Your task to perform on an android device: change notifications settings Image 0: 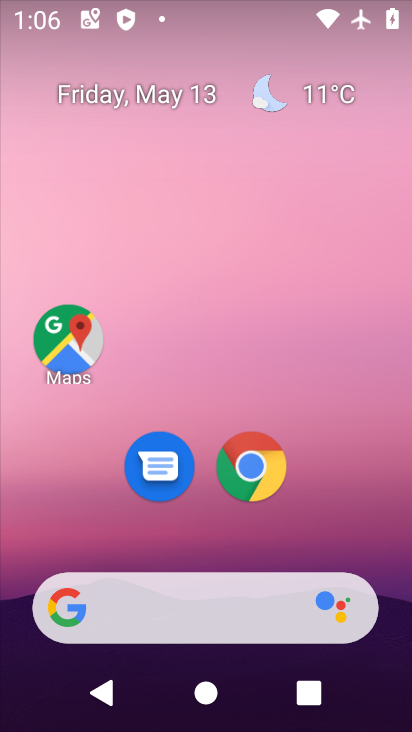
Step 0: drag from (295, 529) to (328, 22)
Your task to perform on an android device: change notifications settings Image 1: 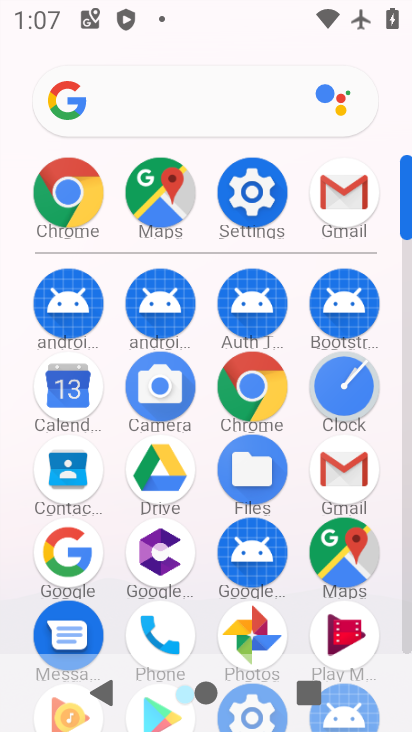
Step 1: click (269, 193)
Your task to perform on an android device: change notifications settings Image 2: 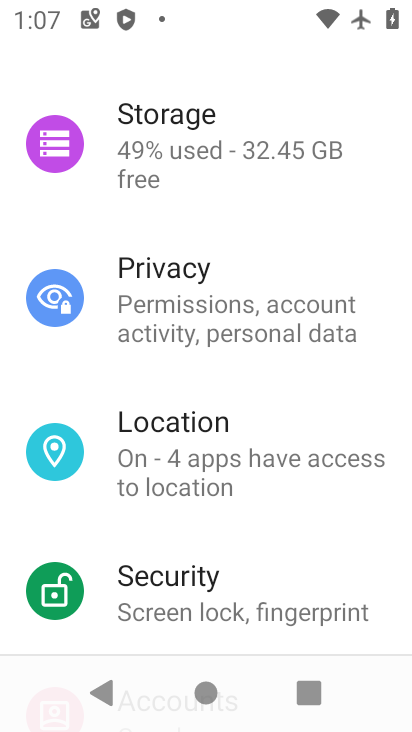
Step 2: drag from (249, 559) to (286, 189)
Your task to perform on an android device: change notifications settings Image 3: 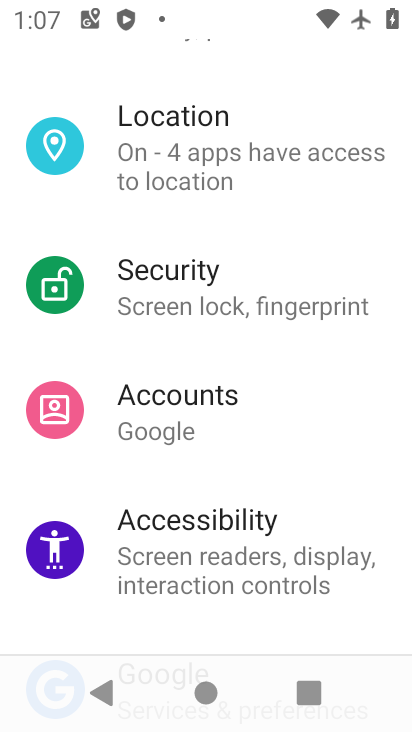
Step 3: drag from (242, 200) to (308, 500)
Your task to perform on an android device: change notifications settings Image 4: 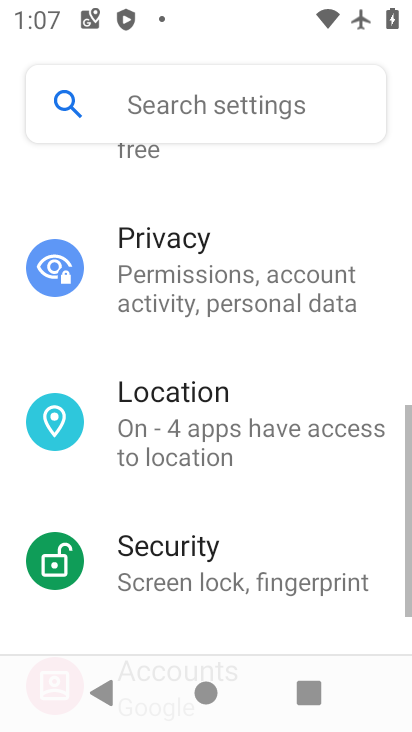
Step 4: drag from (273, 178) to (334, 544)
Your task to perform on an android device: change notifications settings Image 5: 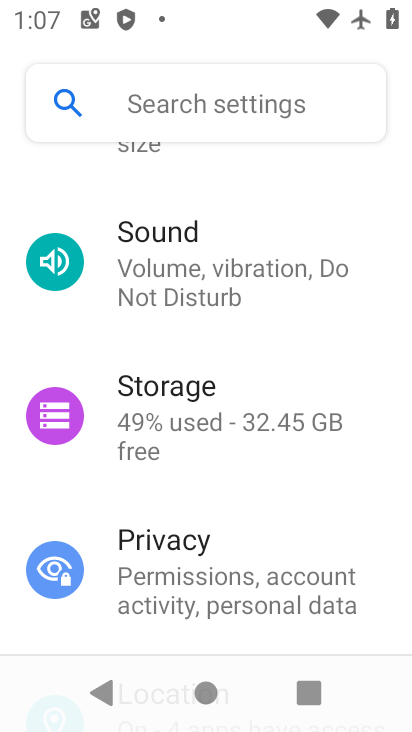
Step 5: drag from (269, 286) to (299, 562)
Your task to perform on an android device: change notifications settings Image 6: 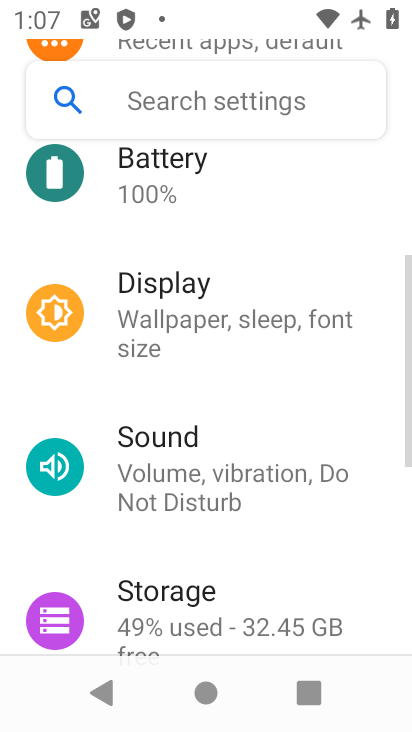
Step 6: drag from (203, 256) to (287, 573)
Your task to perform on an android device: change notifications settings Image 7: 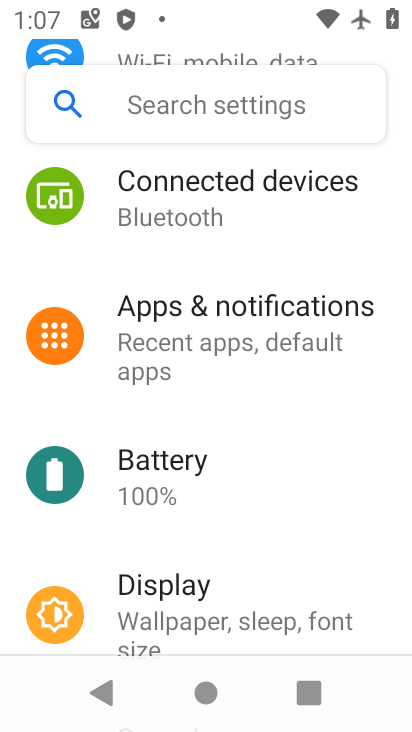
Step 7: click (233, 347)
Your task to perform on an android device: change notifications settings Image 8: 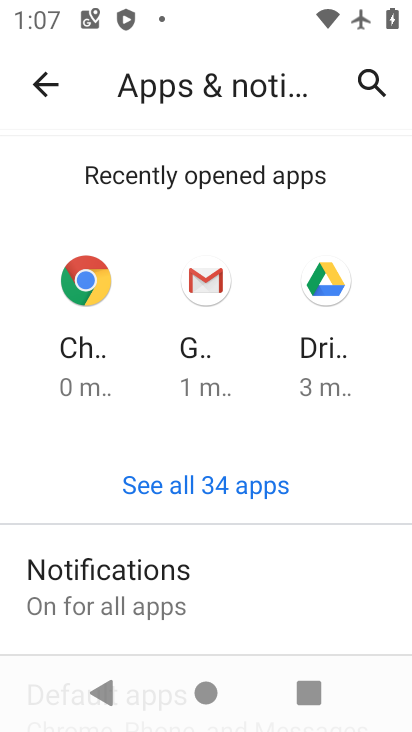
Step 8: drag from (272, 590) to (322, 215)
Your task to perform on an android device: change notifications settings Image 9: 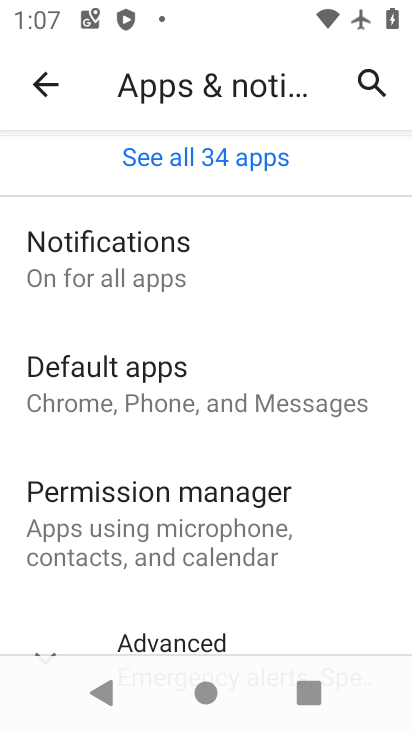
Step 9: click (219, 249)
Your task to perform on an android device: change notifications settings Image 10: 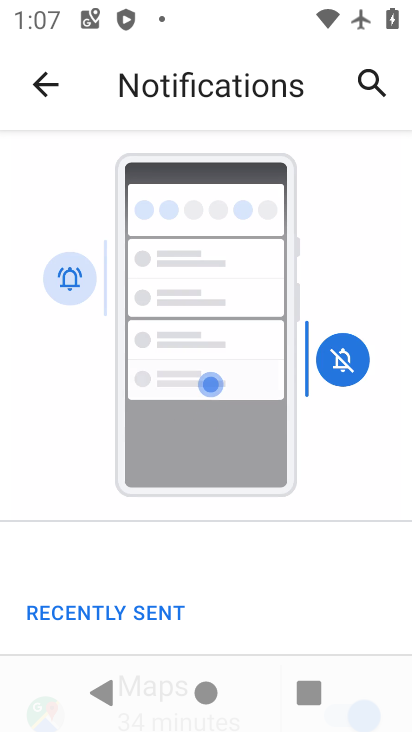
Step 10: drag from (119, 583) to (243, 109)
Your task to perform on an android device: change notifications settings Image 11: 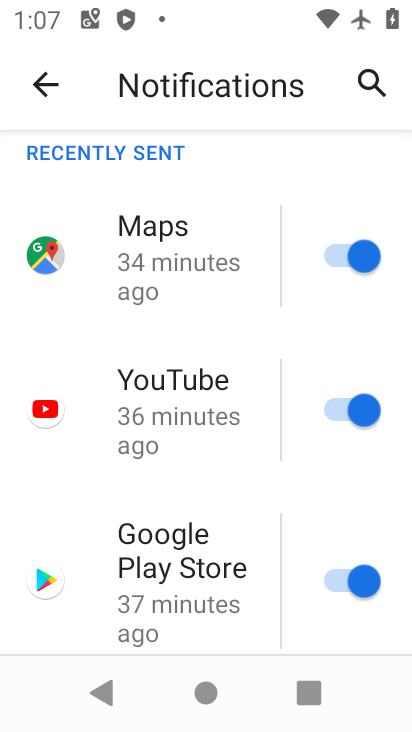
Step 11: drag from (170, 512) to (196, 198)
Your task to perform on an android device: change notifications settings Image 12: 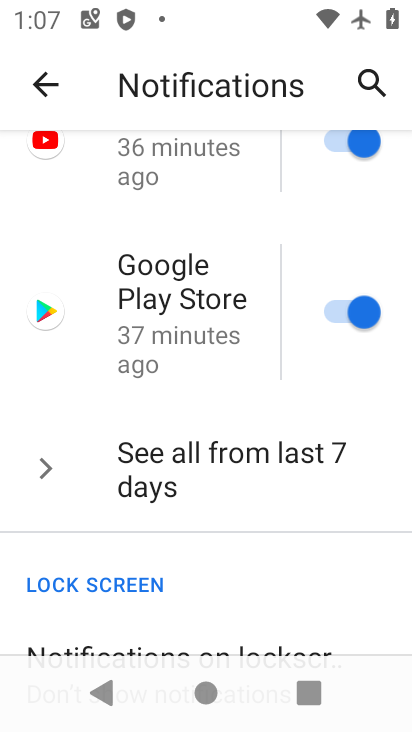
Step 12: click (205, 443)
Your task to perform on an android device: change notifications settings Image 13: 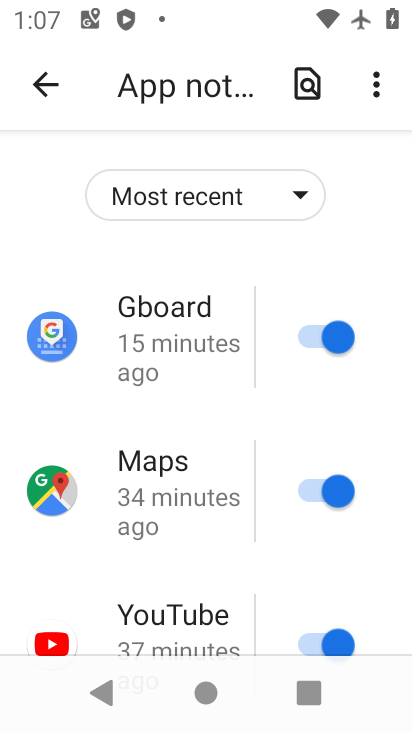
Step 13: click (312, 337)
Your task to perform on an android device: change notifications settings Image 14: 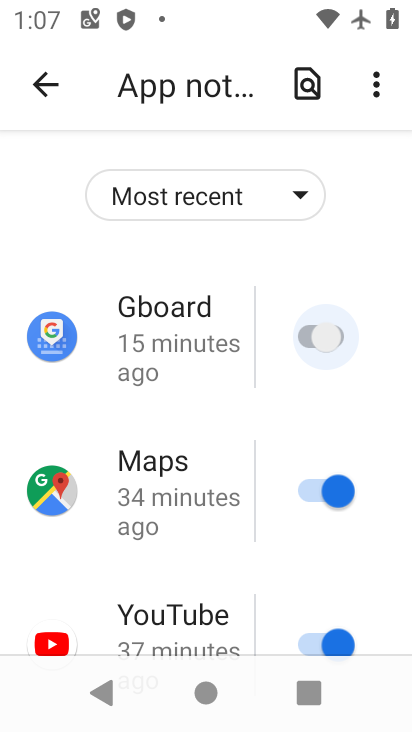
Step 14: click (310, 486)
Your task to perform on an android device: change notifications settings Image 15: 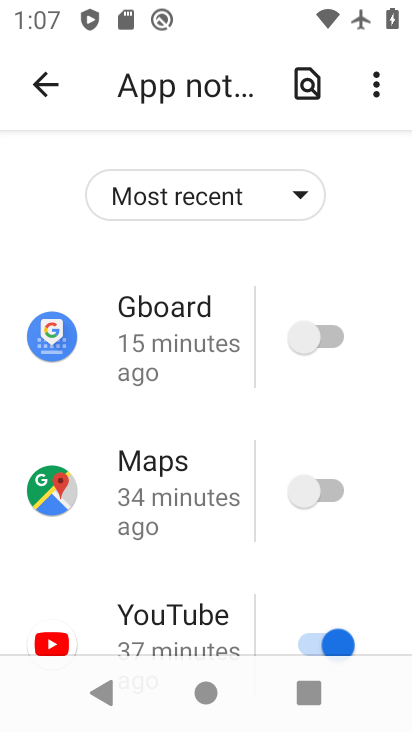
Step 15: click (300, 638)
Your task to perform on an android device: change notifications settings Image 16: 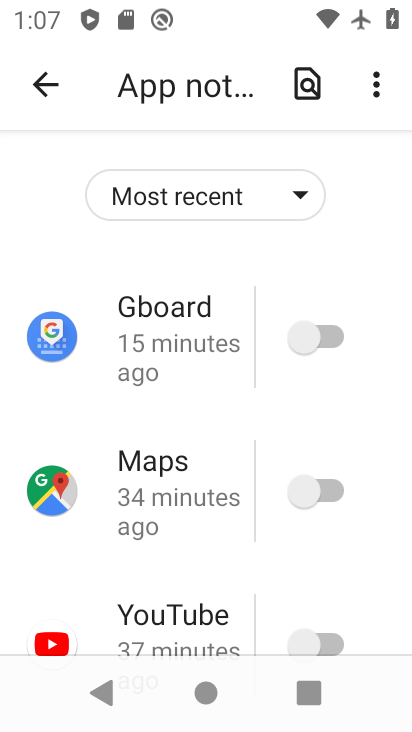
Step 16: drag from (196, 620) to (281, 128)
Your task to perform on an android device: change notifications settings Image 17: 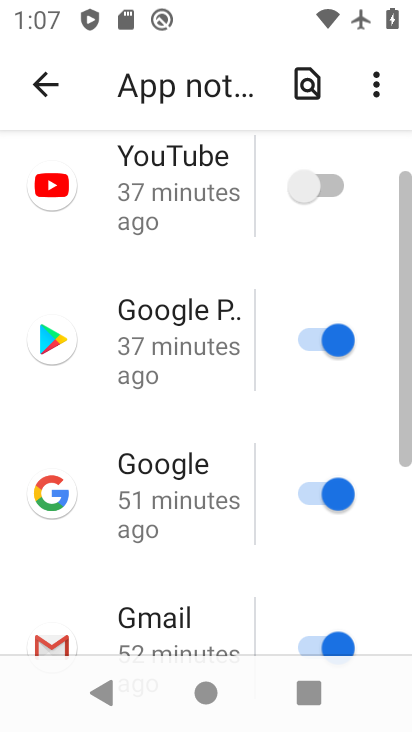
Step 17: click (332, 345)
Your task to perform on an android device: change notifications settings Image 18: 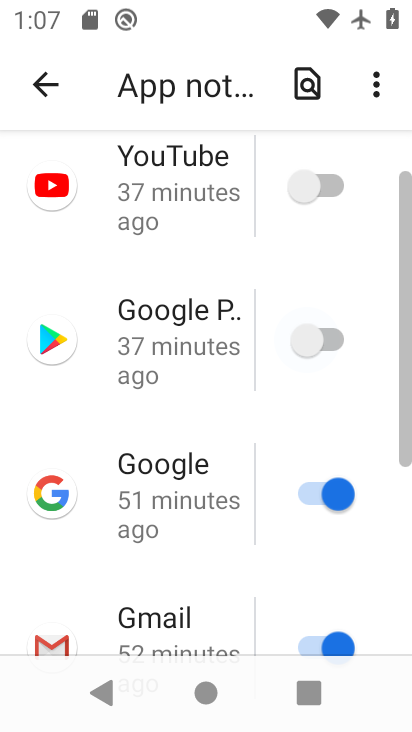
Step 18: click (342, 482)
Your task to perform on an android device: change notifications settings Image 19: 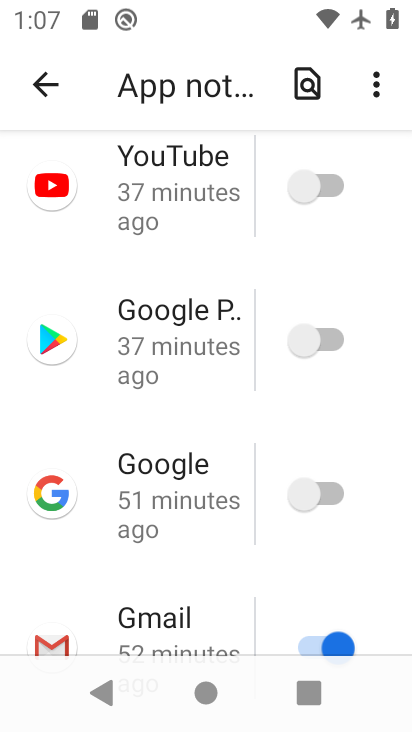
Step 19: click (316, 645)
Your task to perform on an android device: change notifications settings Image 20: 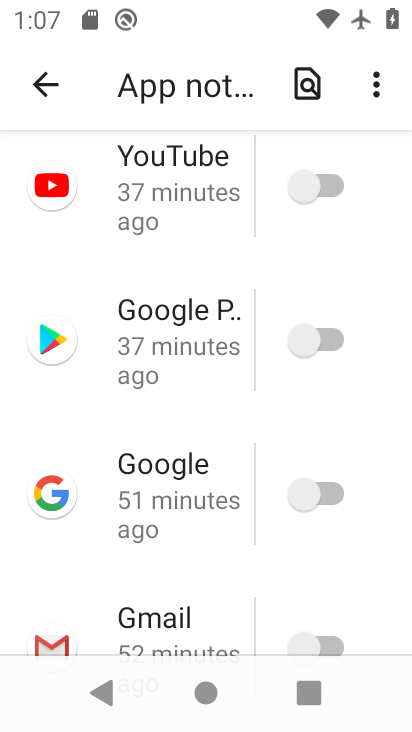
Step 20: drag from (200, 634) to (257, 188)
Your task to perform on an android device: change notifications settings Image 21: 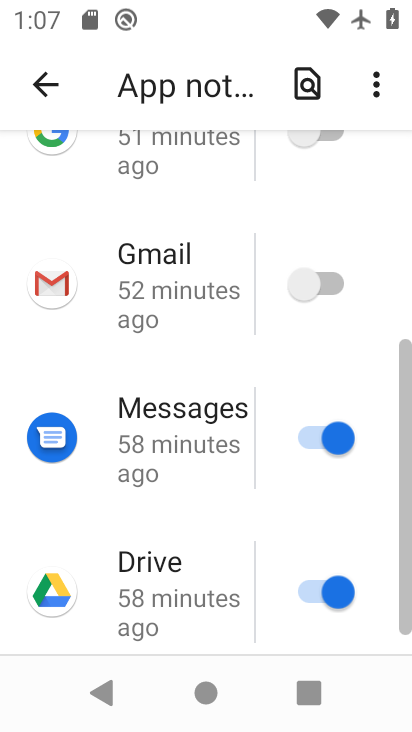
Step 21: click (330, 446)
Your task to perform on an android device: change notifications settings Image 22: 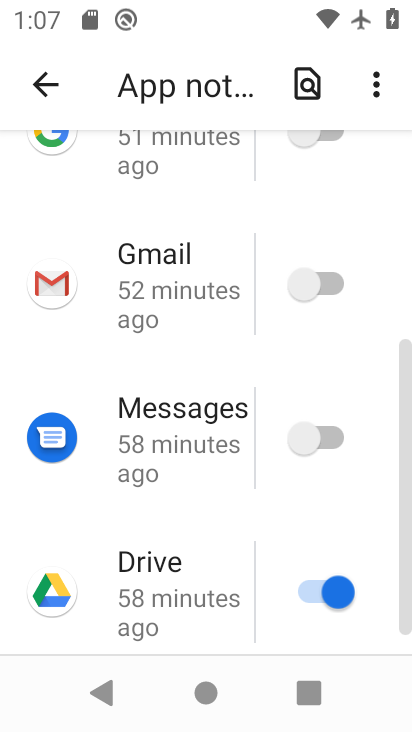
Step 22: click (343, 602)
Your task to perform on an android device: change notifications settings Image 23: 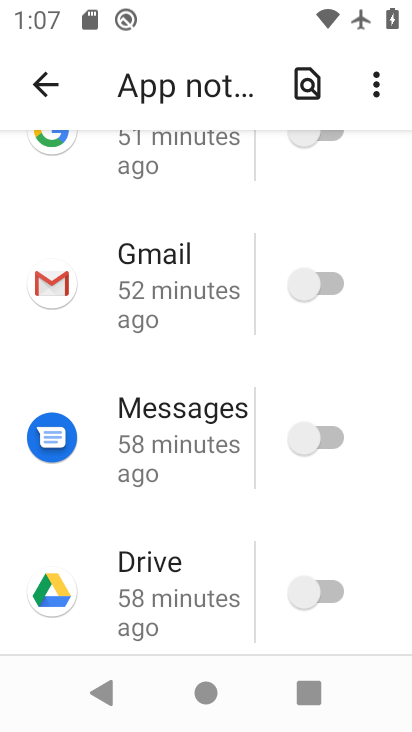
Step 23: drag from (173, 603) to (241, 188)
Your task to perform on an android device: change notifications settings Image 24: 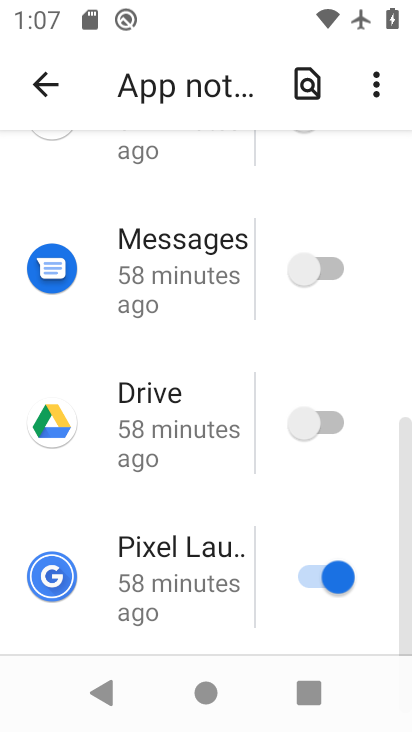
Step 24: click (336, 572)
Your task to perform on an android device: change notifications settings Image 25: 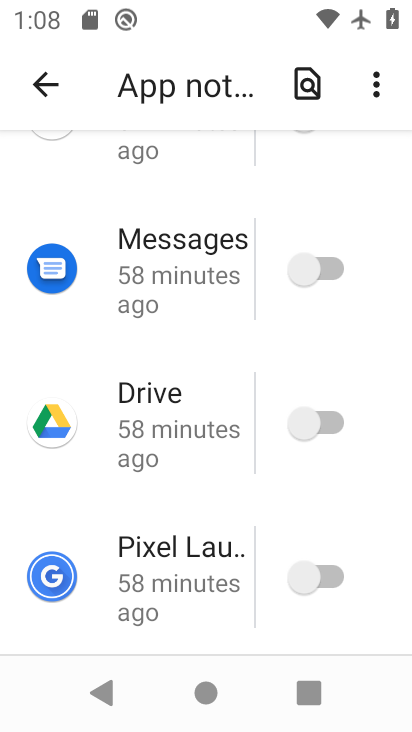
Step 25: click (43, 93)
Your task to perform on an android device: change notifications settings Image 26: 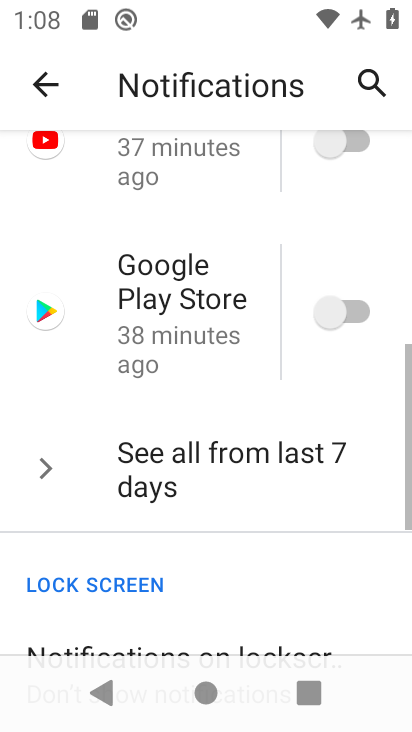
Step 26: drag from (201, 553) to (271, 178)
Your task to perform on an android device: change notifications settings Image 27: 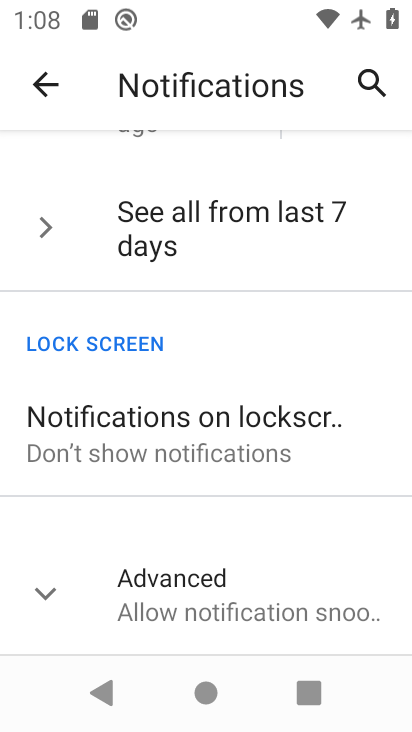
Step 27: click (182, 431)
Your task to perform on an android device: change notifications settings Image 28: 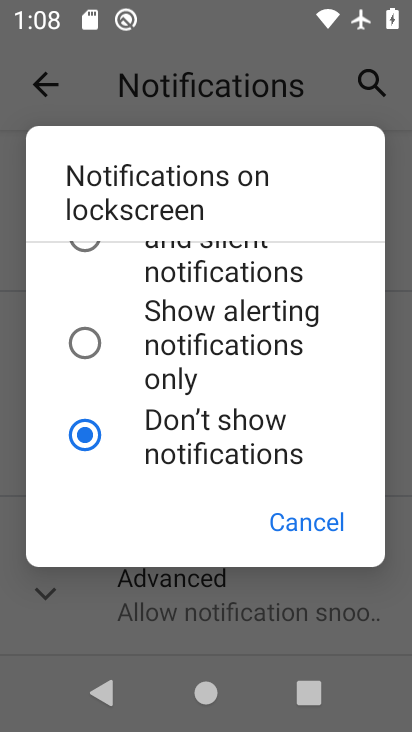
Step 28: click (194, 345)
Your task to perform on an android device: change notifications settings Image 29: 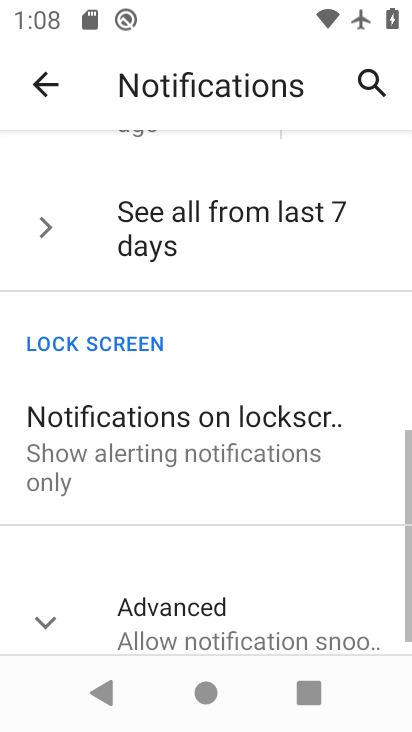
Step 29: drag from (161, 524) to (220, 210)
Your task to perform on an android device: change notifications settings Image 30: 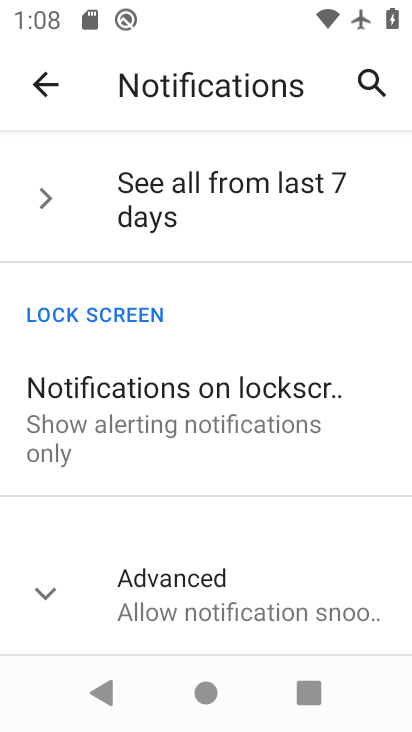
Step 30: click (187, 570)
Your task to perform on an android device: change notifications settings Image 31: 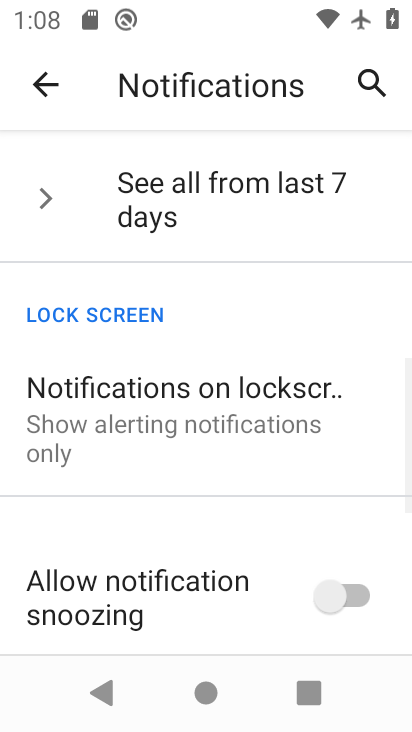
Step 31: drag from (289, 544) to (337, 195)
Your task to perform on an android device: change notifications settings Image 32: 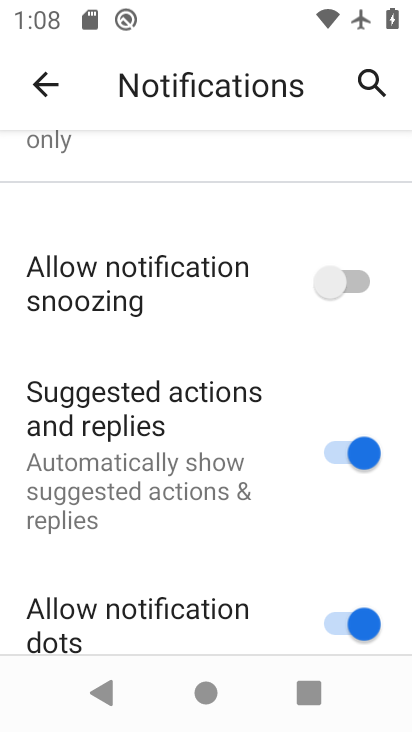
Step 32: click (352, 282)
Your task to perform on an android device: change notifications settings Image 33: 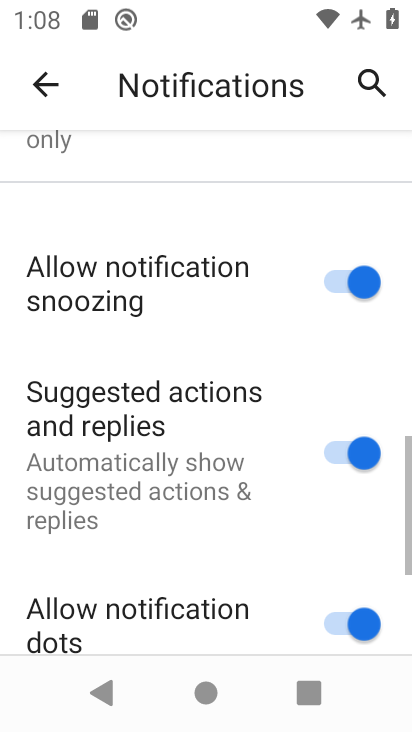
Step 33: click (343, 454)
Your task to perform on an android device: change notifications settings Image 34: 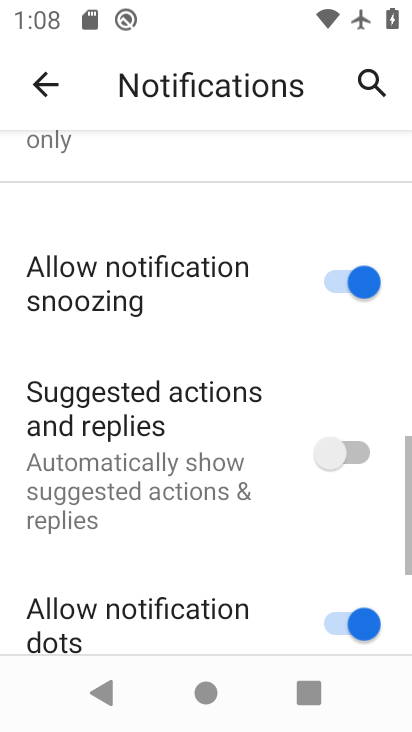
Step 34: click (332, 620)
Your task to perform on an android device: change notifications settings Image 35: 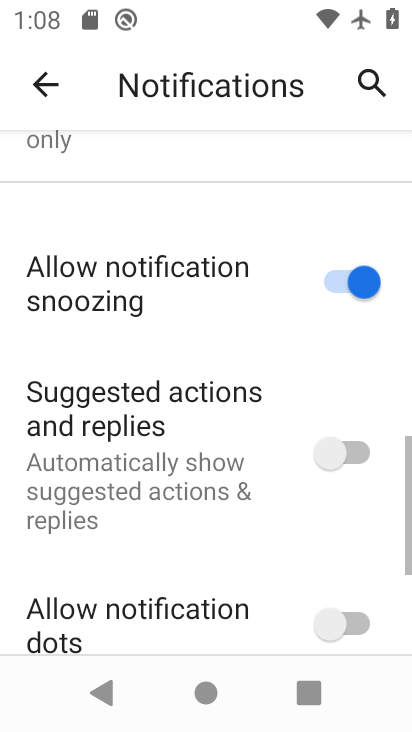
Step 35: task complete